Your task to perform on an android device: Open Amazon Image 0: 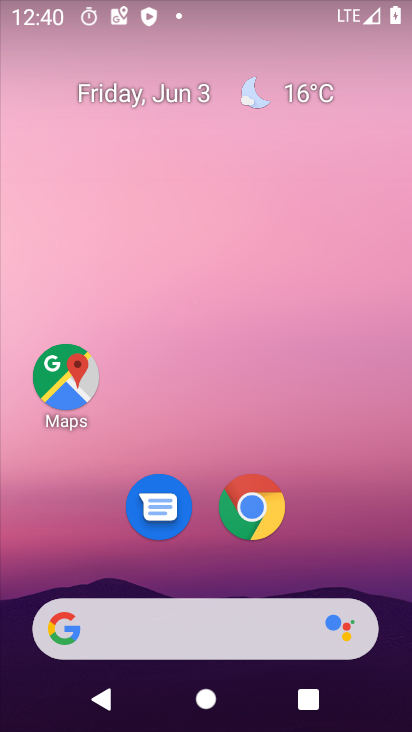
Step 0: drag from (402, 535) to (344, 45)
Your task to perform on an android device: Open Amazon Image 1: 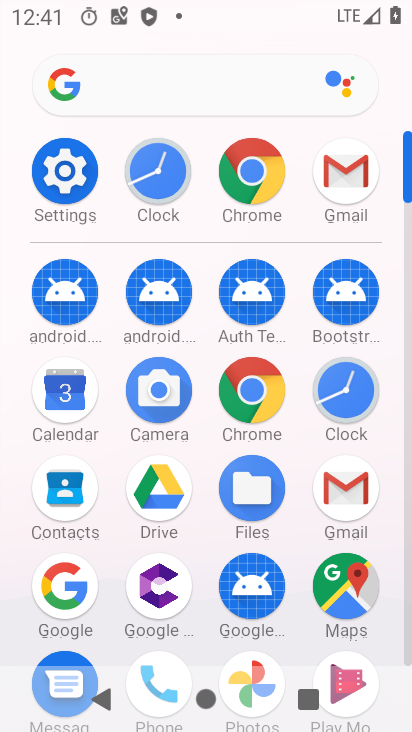
Step 1: click (93, 589)
Your task to perform on an android device: Open Amazon Image 2: 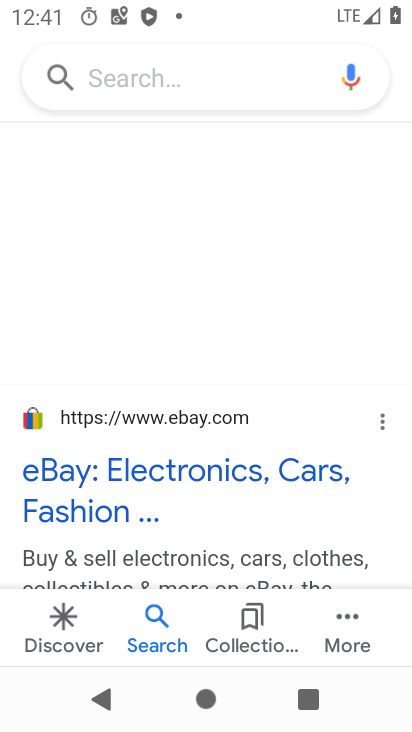
Step 2: press back button
Your task to perform on an android device: Open Amazon Image 3: 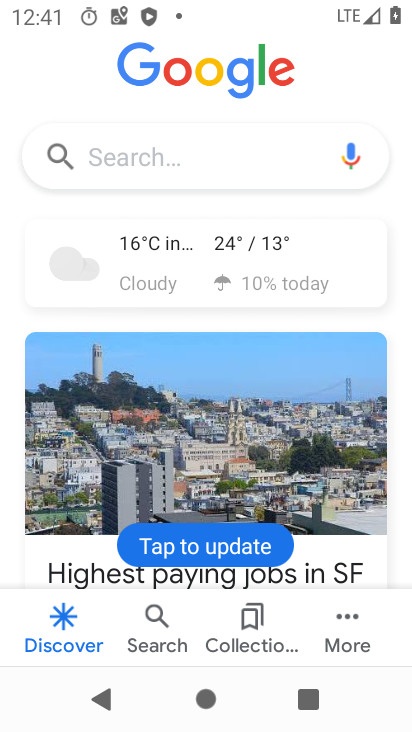
Step 3: click (135, 156)
Your task to perform on an android device: Open Amazon Image 4: 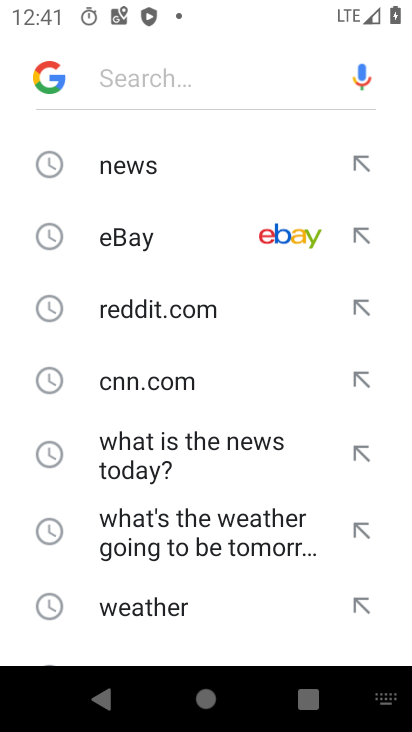
Step 4: drag from (159, 601) to (170, 170)
Your task to perform on an android device: Open Amazon Image 5: 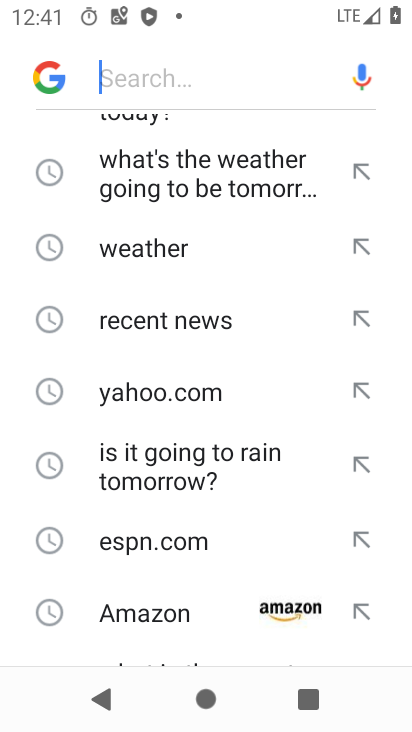
Step 5: click (183, 620)
Your task to perform on an android device: Open Amazon Image 6: 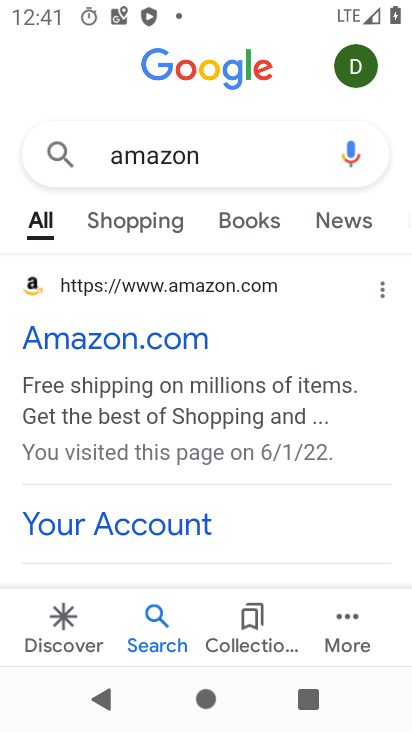
Step 6: task complete